Your task to perform on an android device: turn on sleep mode Image 0: 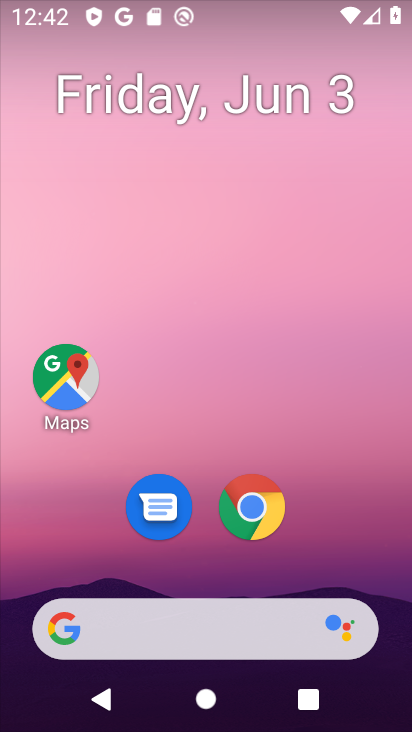
Step 0: drag from (393, 569) to (325, 115)
Your task to perform on an android device: turn on sleep mode Image 1: 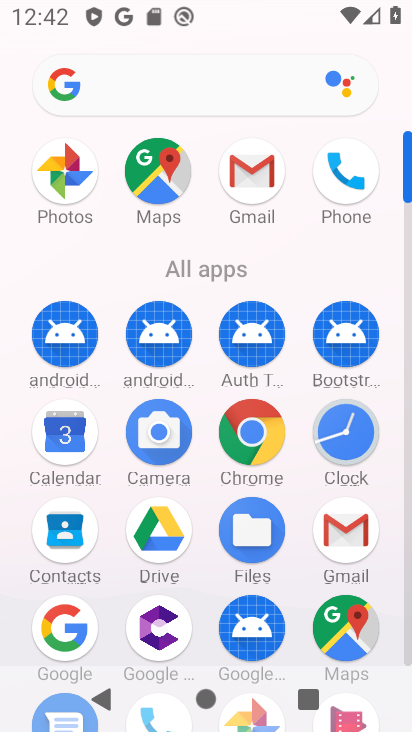
Step 1: drag from (195, 653) to (208, 368)
Your task to perform on an android device: turn on sleep mode Image 2: 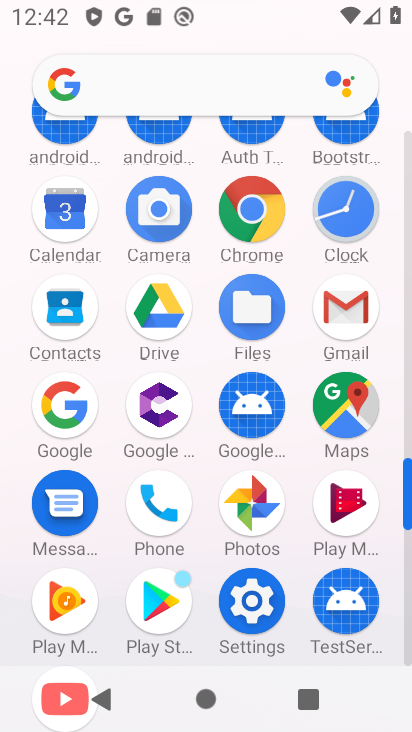
Step 2: click (254, 586)
Your task to perform on an android device: turn on sleep mode Image 3: 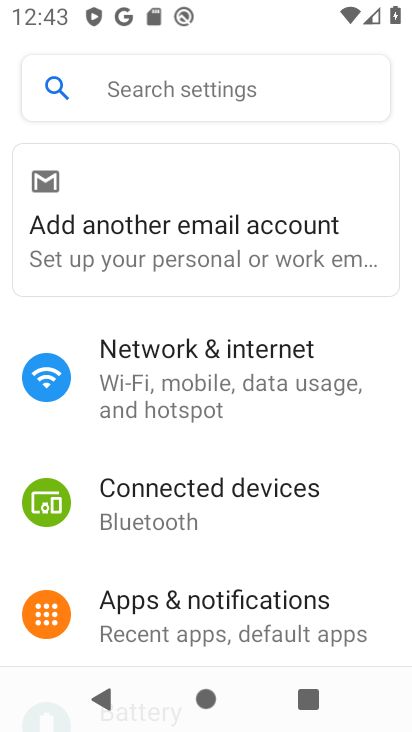
Step 3: click (152, 88)
Your task to perform on an android device: turn on sleep mode Image 4: 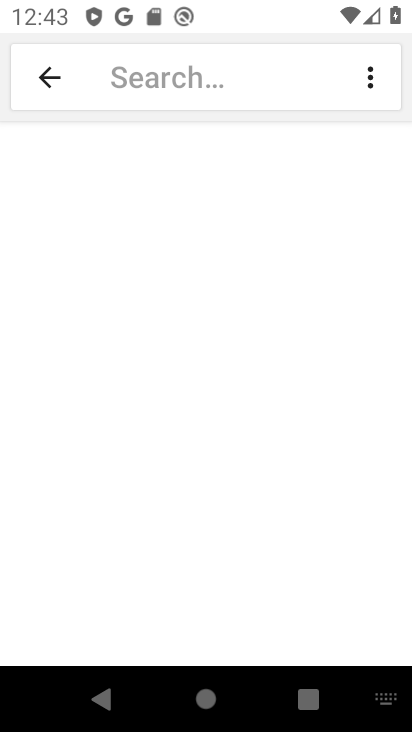
Step 4: type "sleep mode"
Your task to perform on an android device: turn on sleep mode Image 5: 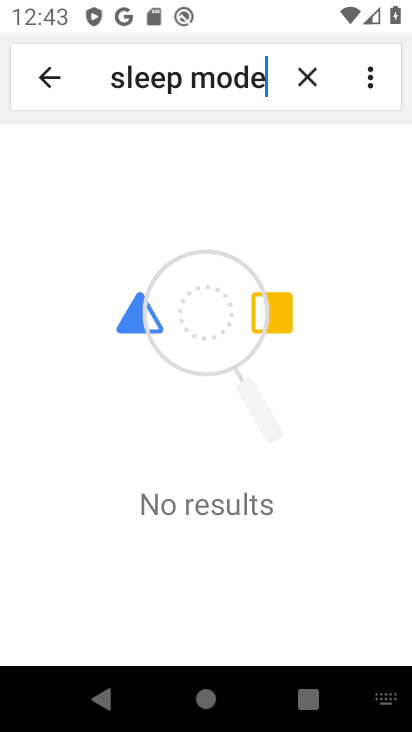
Step 5: task complete